Your task to perform on an android device: What is the recent news? Image 0: 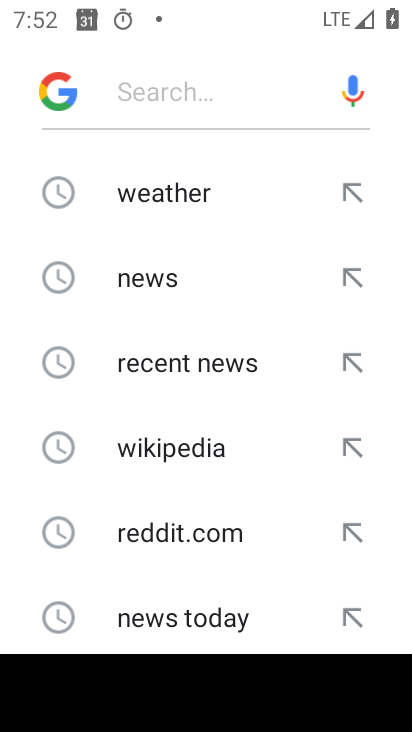
Step 0: press home button
Your task to perform on an android device: What is the recent news? Image 1: 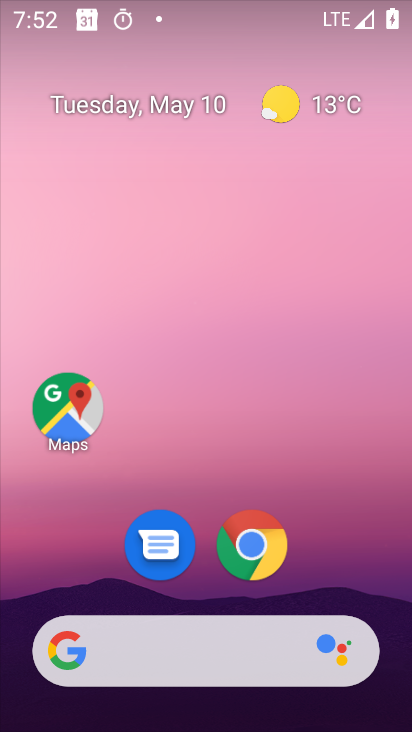
Step 1: task complete